Your task to perform on an android device: toggle javascript in the chrome app Image 0: 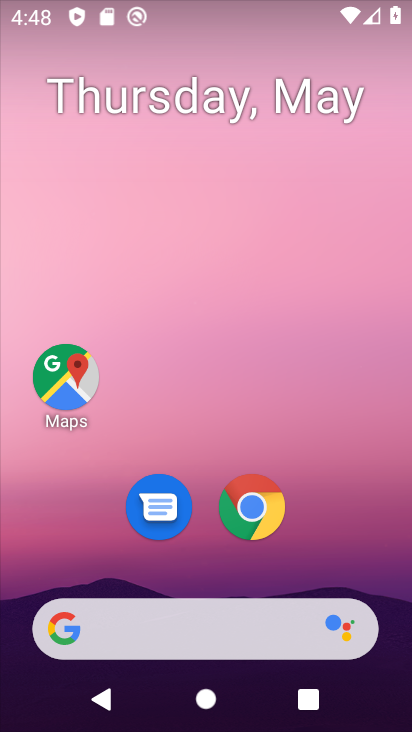
Step 0: click (251, 509)
Your task to perform on an android device: toggle javascript in the chrome app Image 1: 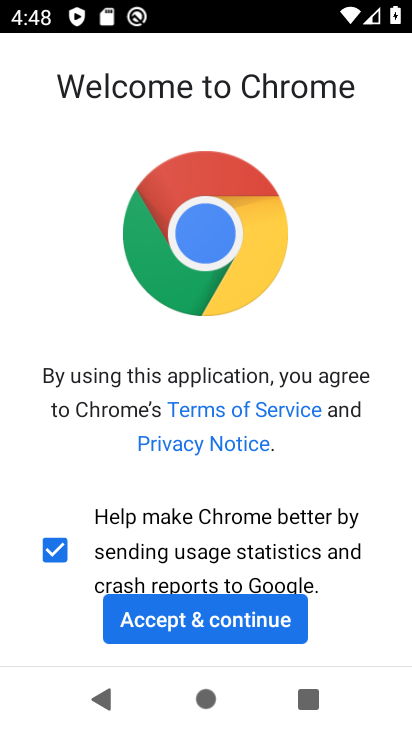
Step 1: click (187, 617)
Your task to perform on an android device: toggle javascript in the chrome app Image 2: 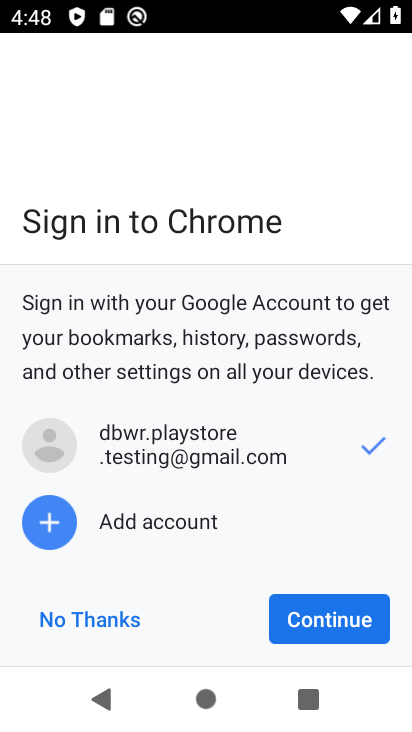
Step 2: click (332, 626)
Your task to perform on an android device: toggle javascript in the chrome app Image 3: 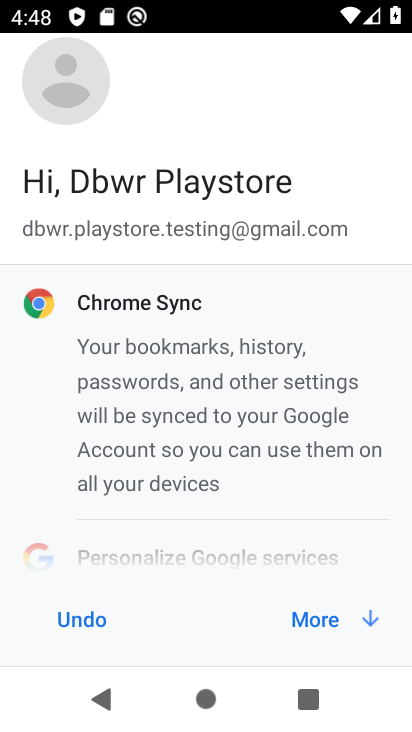
Step 3: click (332, 626)
Your task to perform on an android device: toggle javascript in the chrome app Image 4: 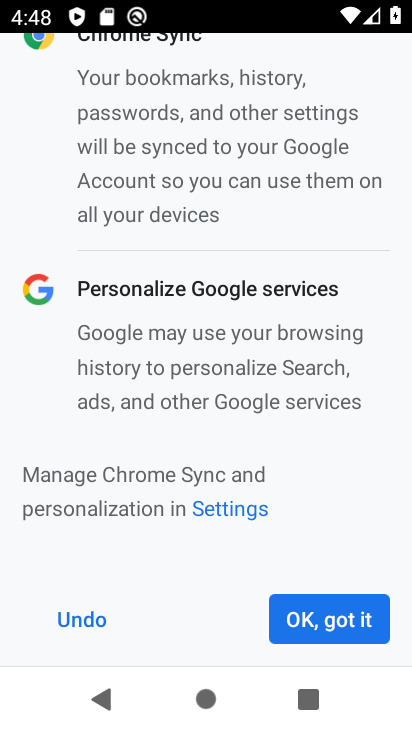
Step 4: click (332, 627)
Your task to perform on an android device: toggle javascript in the chrome app Image 5: 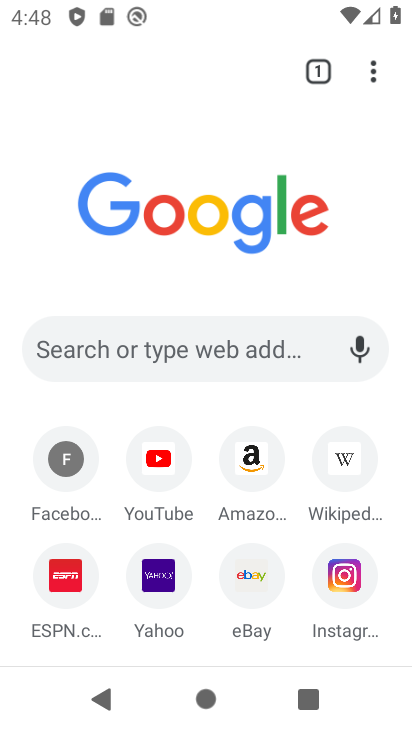
Step 5: drag from (381, 74) to (175, 515)
Your task to perform on an android device: toggle javascript in the chrome app Image 6: 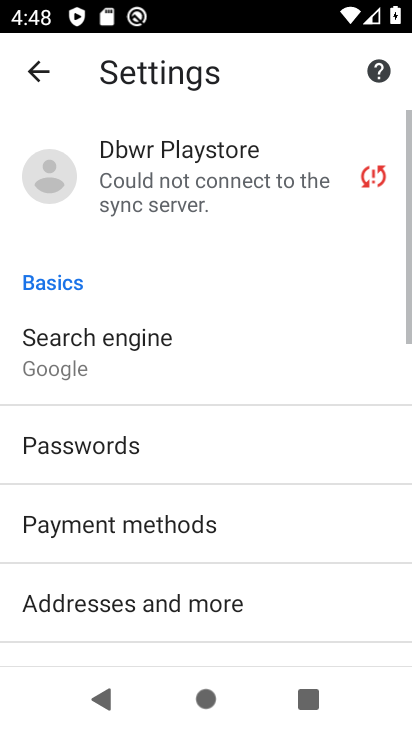
Step 6: drag from (208, 532) to (337, 39)
Your task to perform on an android device: toggle javascript in the chrome app Image 7: 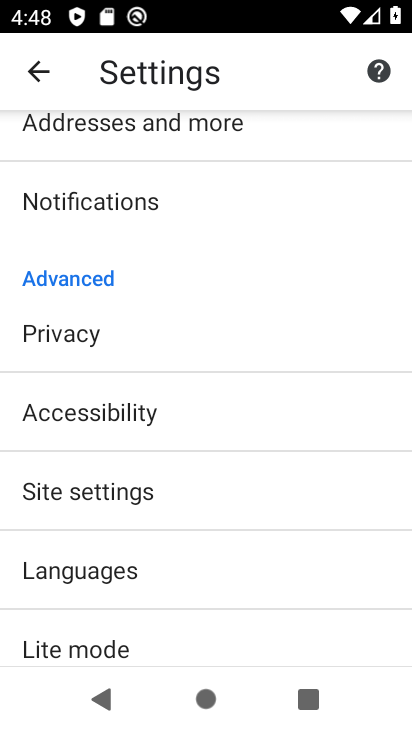
Step 7: click (176, 482)
Your task to perform on an android device: toggle javascript in the chrome app Image 8: 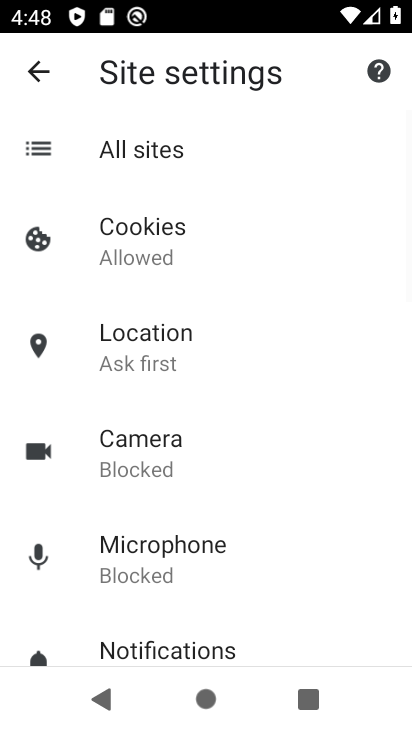
Step 8: drag from (221, 568) to (300, 245)
Your task to perform on an android device: toggle javascript in the chrome app Image 9: 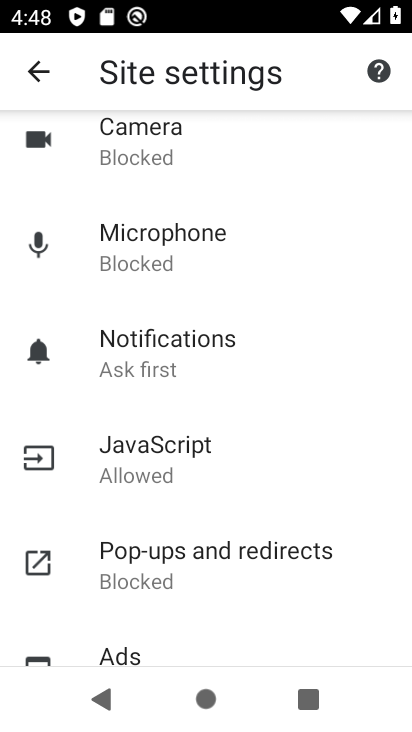
Step 9: click (160, 471)
Your task to perform on an android device: toggle javascript in the chrome app Image 10: 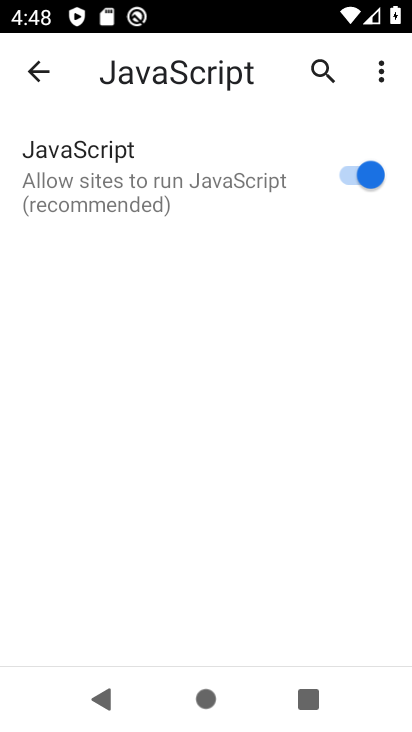
Step 10: click (355, 164)
Your task to perform on an android device: toggle javascript in the chrome app Image 11: 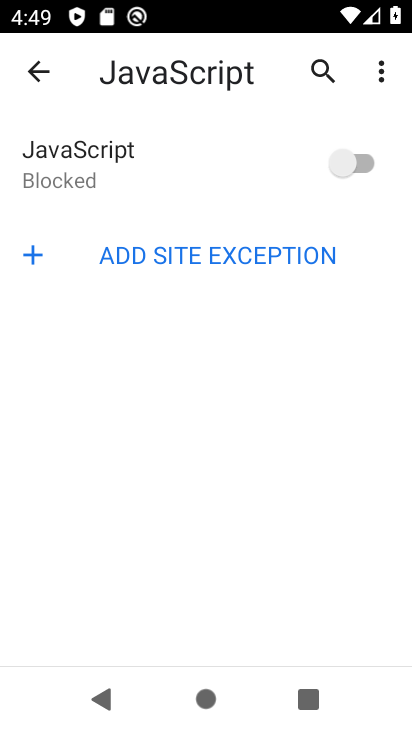
Step 11: task complete